Your task to perform on an android device: change keyboard looks Image 0: 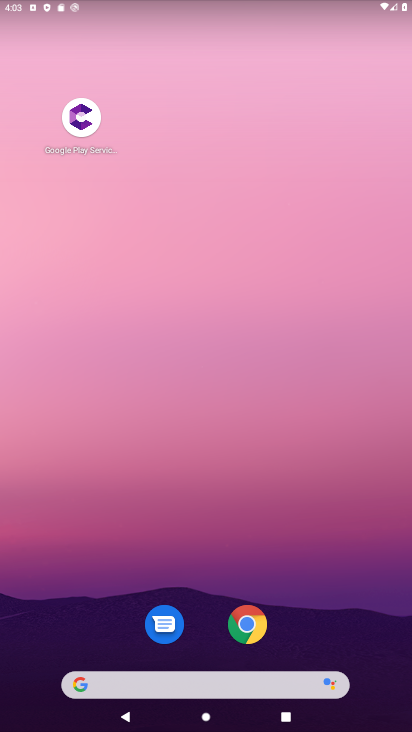
Step 0: drag from (229, 663) to (406, 131)
Your task to perform on an android device: change keyboard looks Image 1: 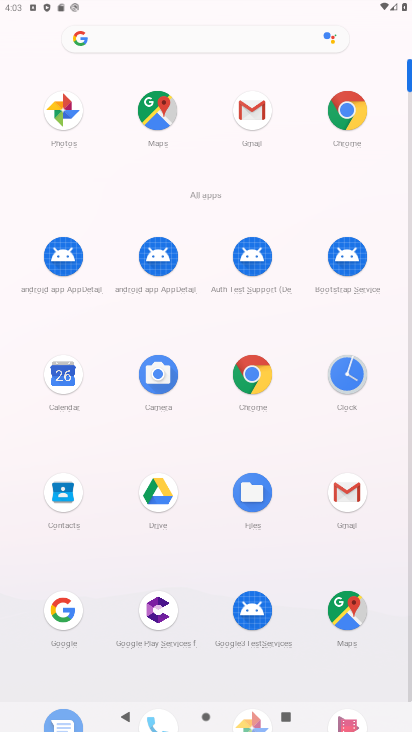
Step 1: drag from (206, 573) to (225, 132)
Your task to perform on an android device: change keyboard looks Image 2: 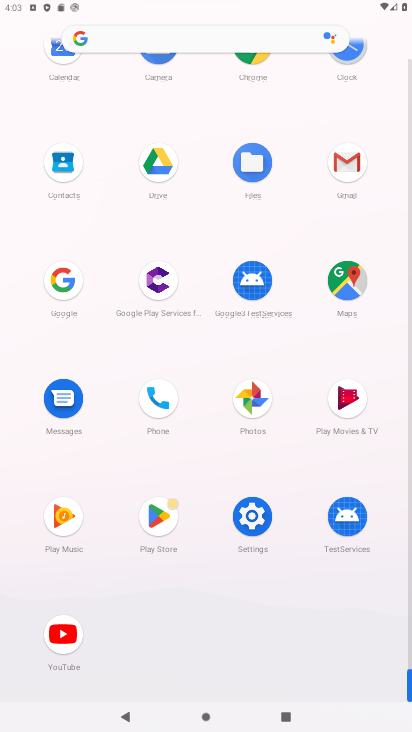
Step 2: click (256, 527)
Your task to perform on an android device: change keyboard looks Image 3: 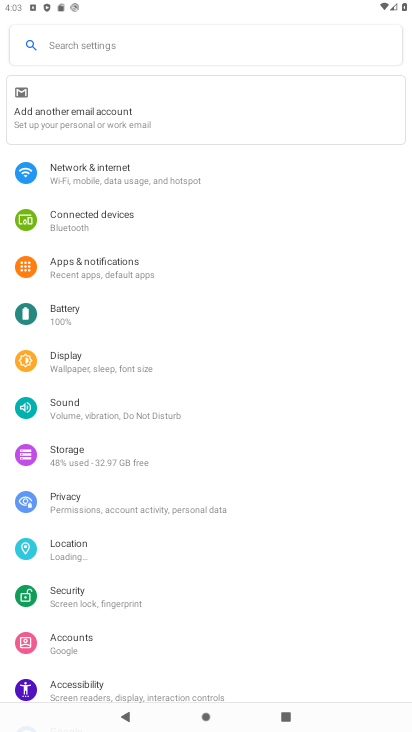
Step 3: drag from (199, 641) to (225, 317)
Your task to perform on an android device: change keyboard looks Image 4: 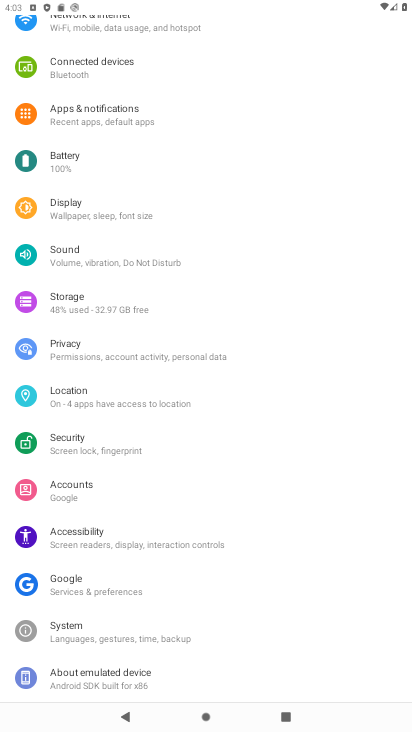
Step 4: click (129, 587)
Your task to perform on an android device: change keyboard looks Image 5: 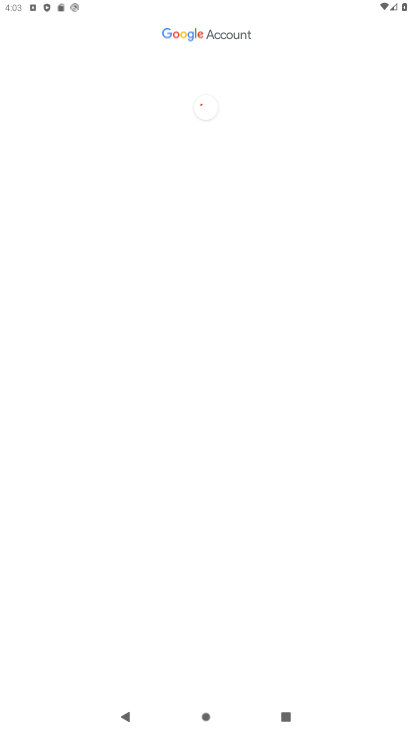
Step 5: press back button
Your task to perform on an android device: change keyboard looks Image 6: 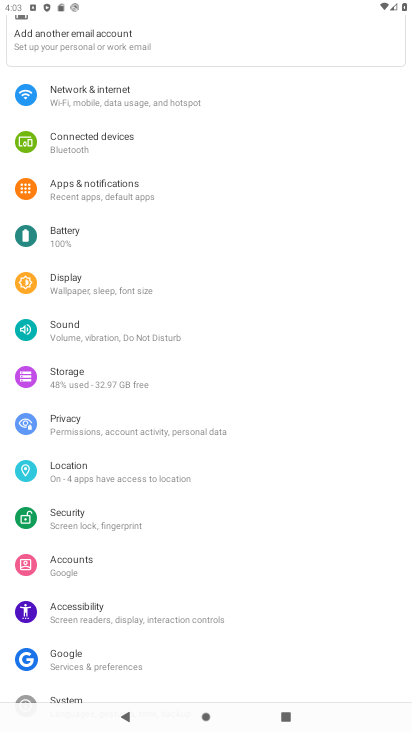
Step 6: drag from (141, 630) to (179, 382)
Your task to perform on an android device: change keyboard looks Image 7: 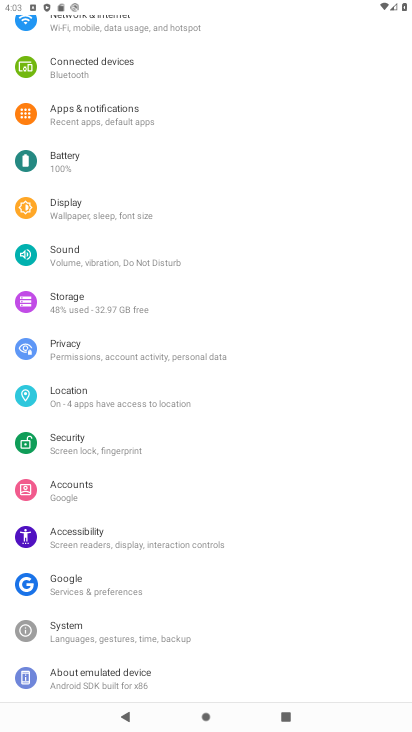
Step 7: click (123, 633)
Your task to perform on an android device: change keyboard looks Image 8: 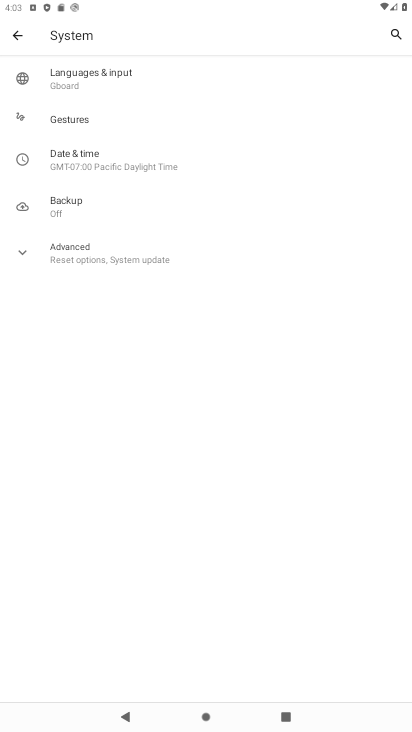
Step 8: click (119, 75)
Your task to perform on an android device: change keyboard looks Image 9: 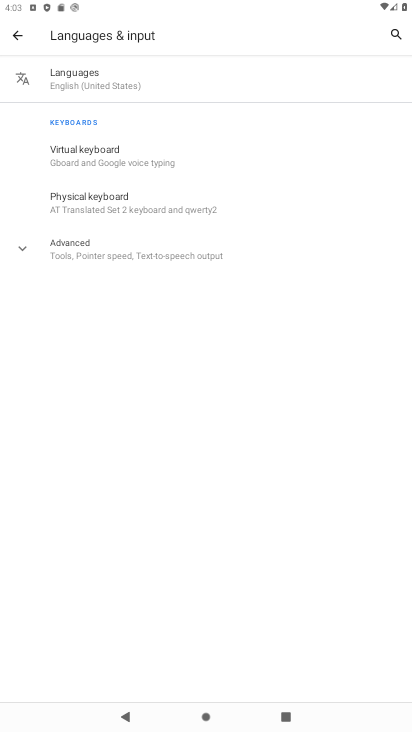
Step 9: click (106, 148)
Your task to perform on an android device: change keyboard looks Image 10: 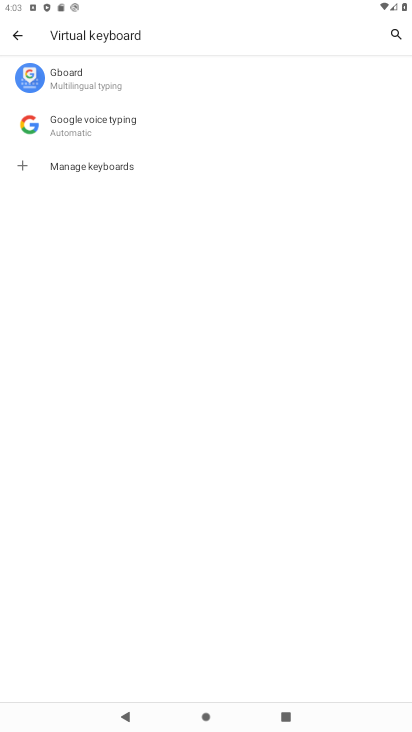
Step 10: click (95, 81)
Your task to perform on an android device: change keyboard looks Image 11: 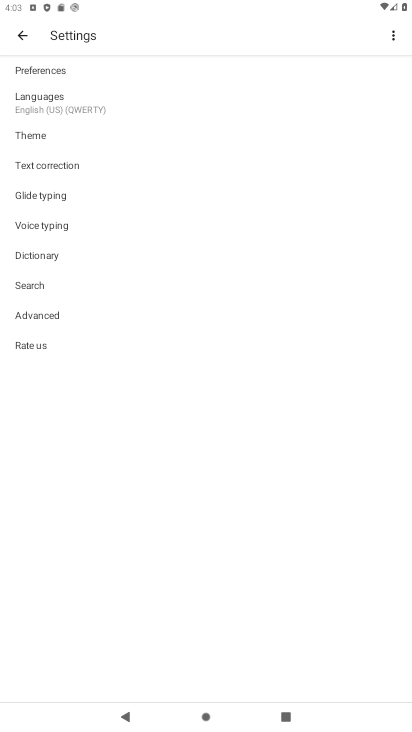
Step 11: click (37, 134)
Your task to perform on an android device: change keyboard looks Image 12: 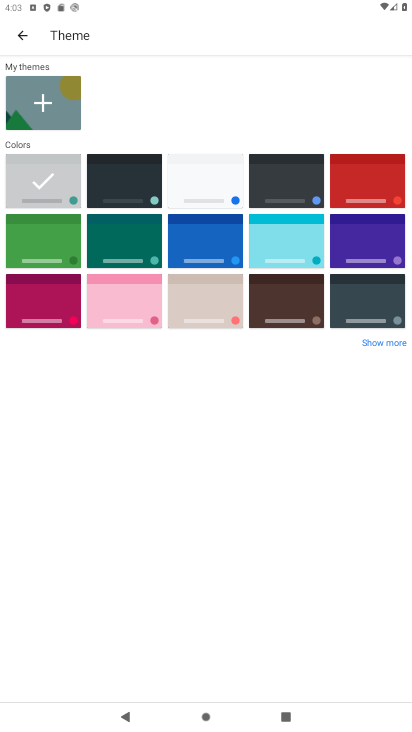
Step 12: click (265, 237)
Your task to perform on an android device: change keyboard looks Image 13: 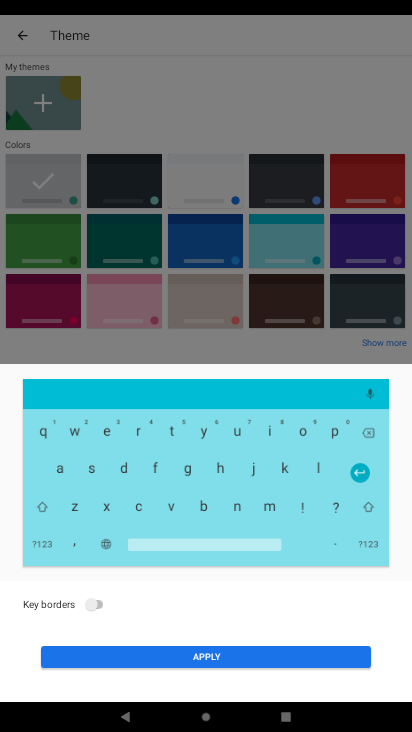
Step 13: click (251, 656)
Your task to perform on an android device: change keyboard looks Image 14: 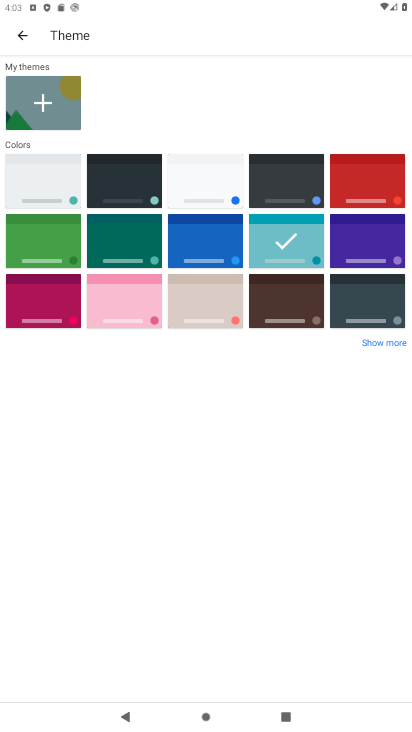
Step 14: task complete